Your task to perform on an android device: Open the web browser Image 0: 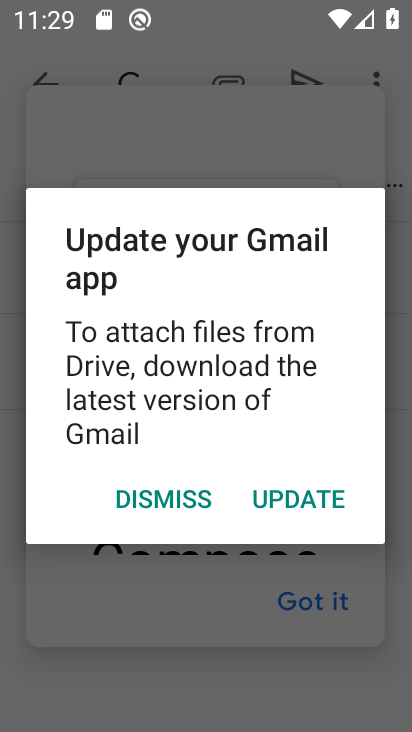
Step 0: press home button
Your task to perform on an android device: Open the web browser Image 1: 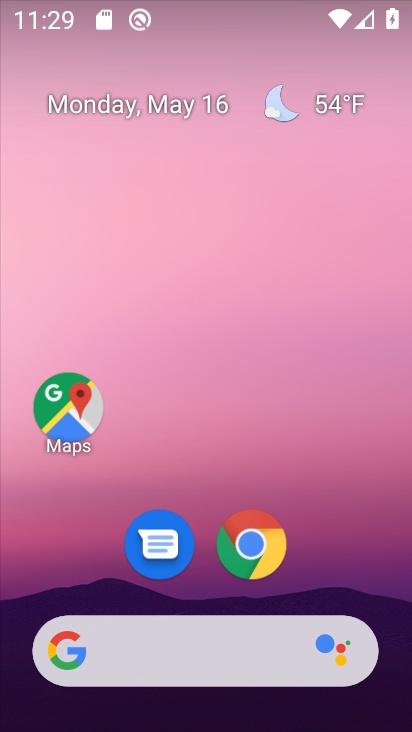
Step 1: click (238, 548)
Your task to perform on an android device: Open the web browser Image 2: 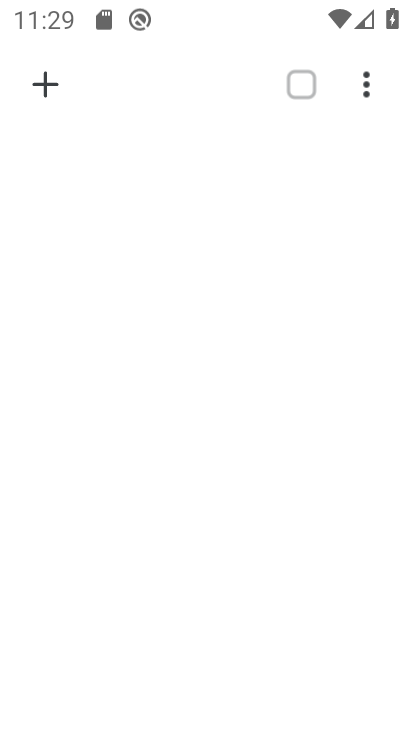
Step 2: task complete